Your task to perform on an android device: change the clock display to digital Image 0: 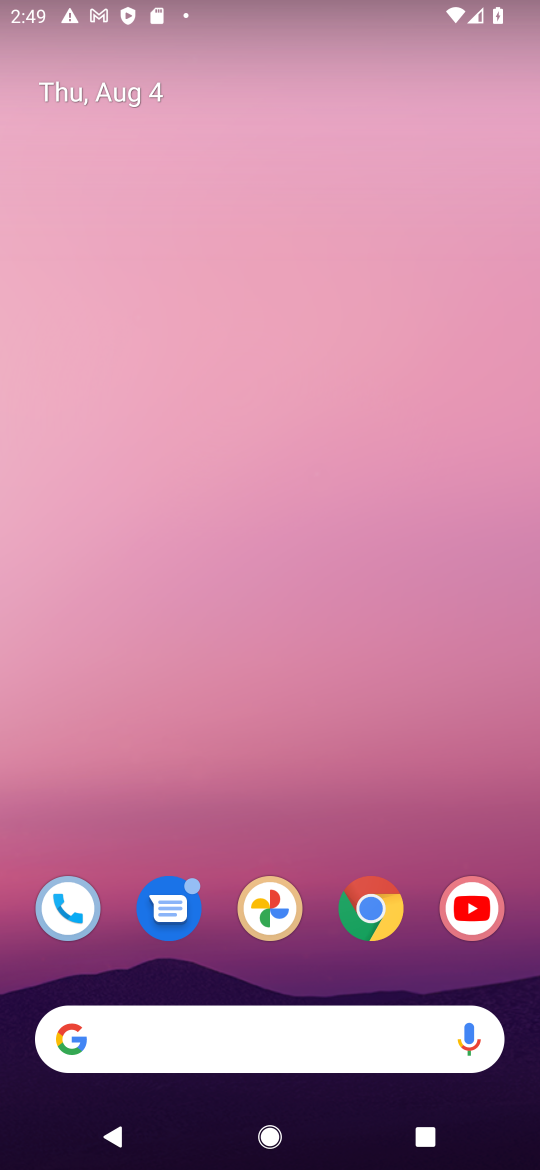
Step 0: drag from (368, 717) to (348, 160)
Your task to perform on an android device: change the clock display to digital Image 1: 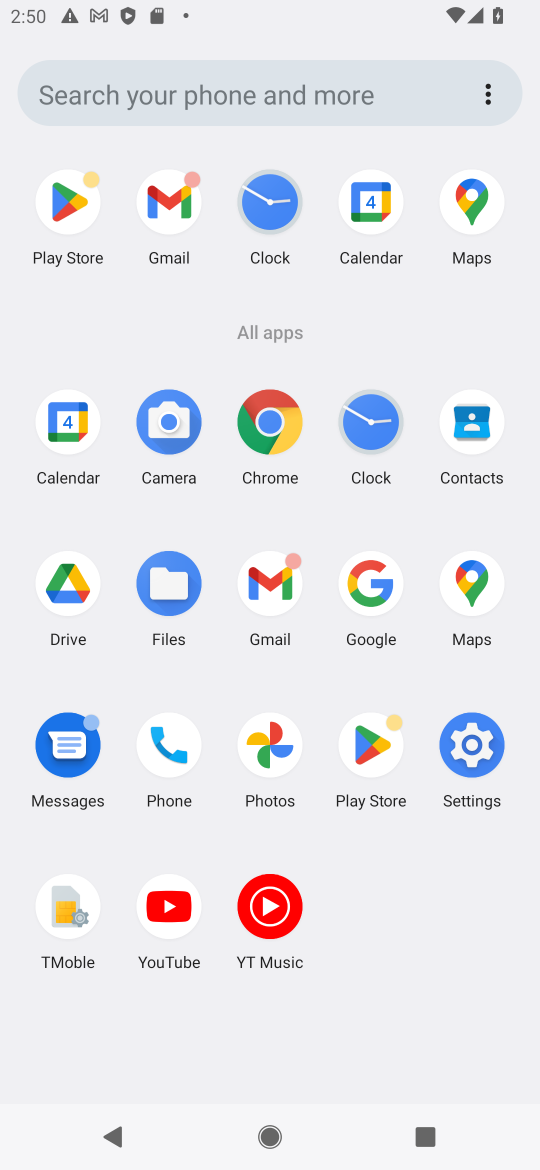
Step 1: click (360, 394)
Your task to perform on an android device: change the clock display to digital Image 2: 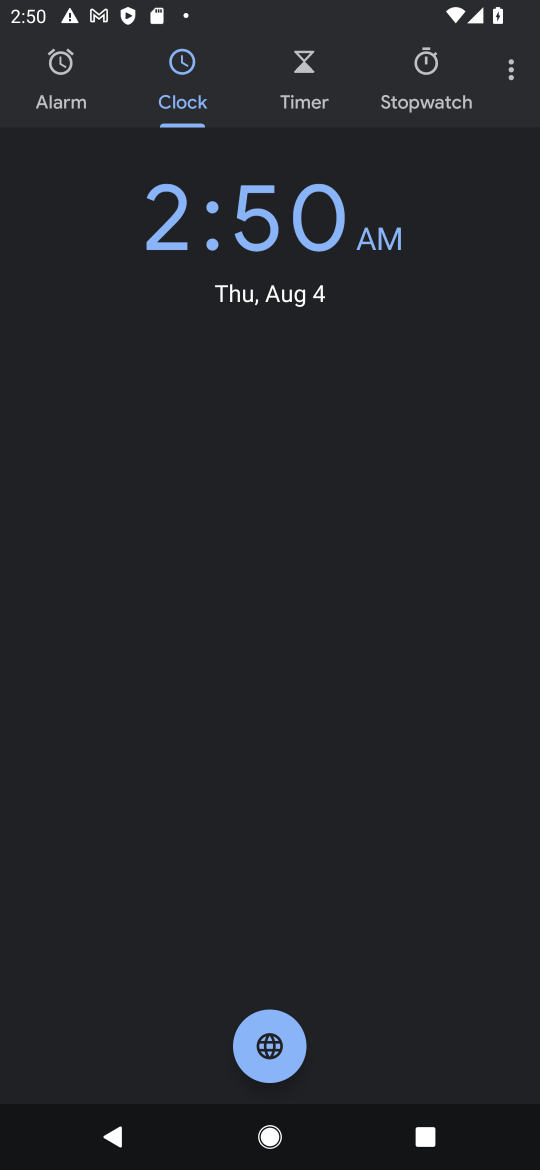
Step 2: click (511, 86)
Your task to perform on an android device: change the clock display to digital Image 3: 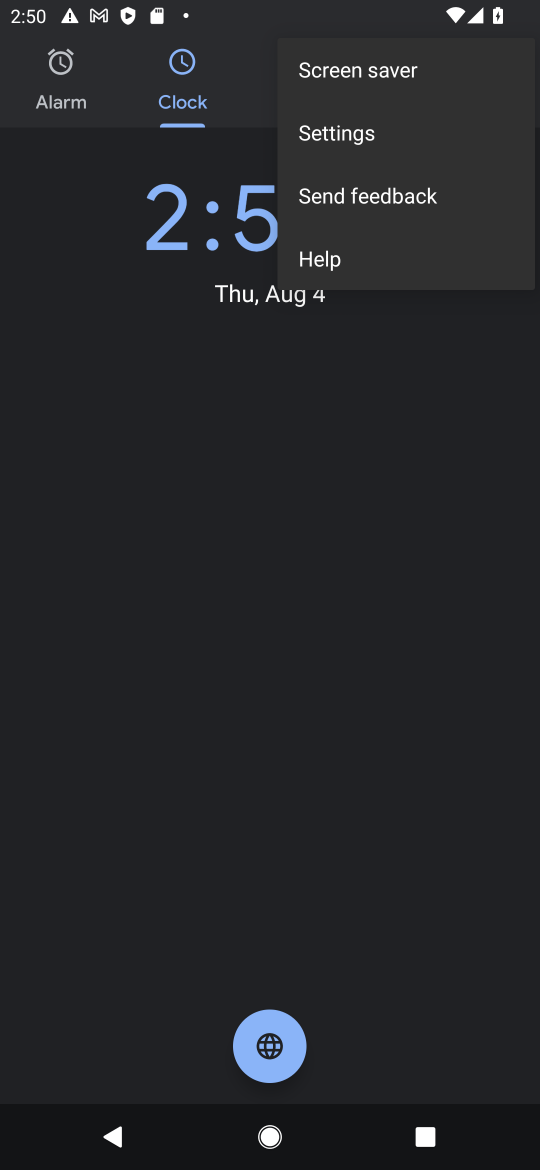
Step 3: click (362, 126)
Your task to perform on an android device: change the clock display to digital Image 4: 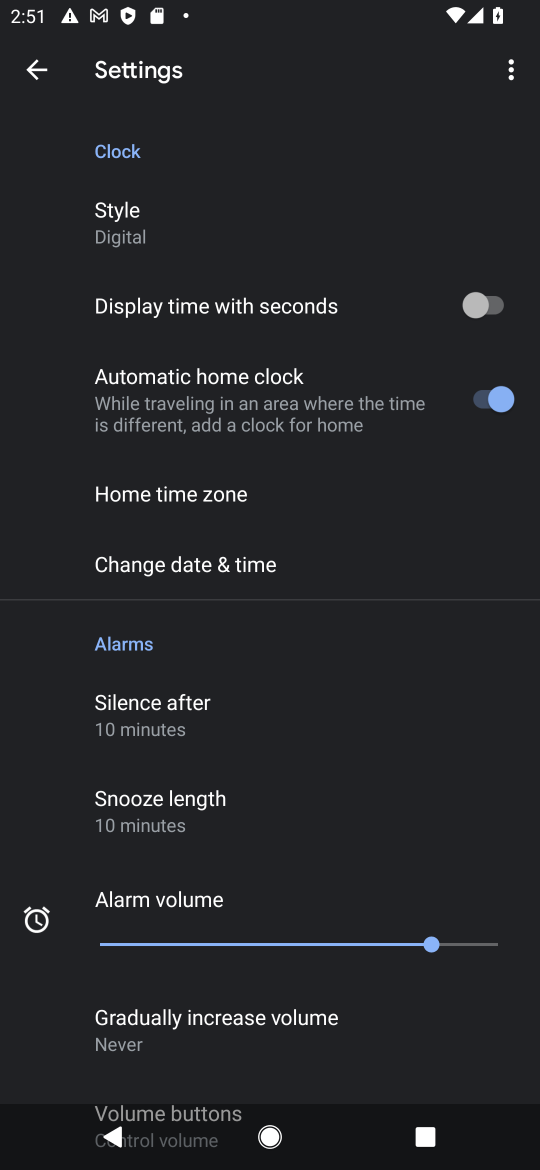
Step 4: task complete